Your task to perform on an android device: Open Google Chrome Image 0: 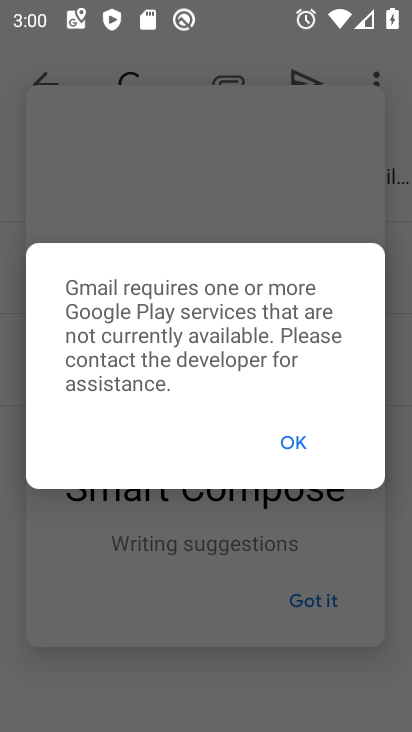
Step 0: press home button
Your task to perform on an android device: Open Google Chrome Image 1: 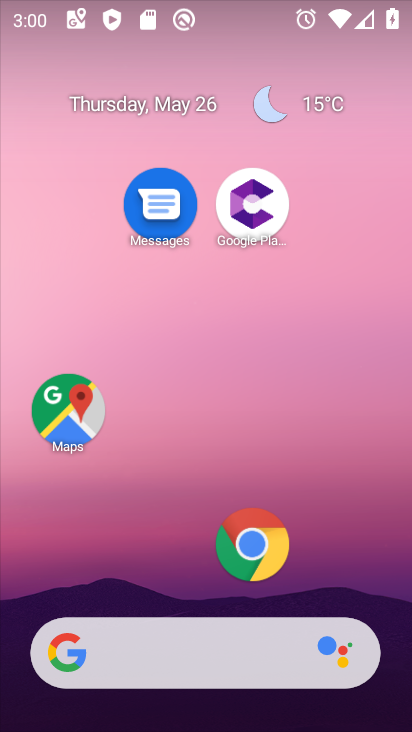
Step 1: click (247, 527)
Your task to perform on an android device: Open Google Chrome Image 2: 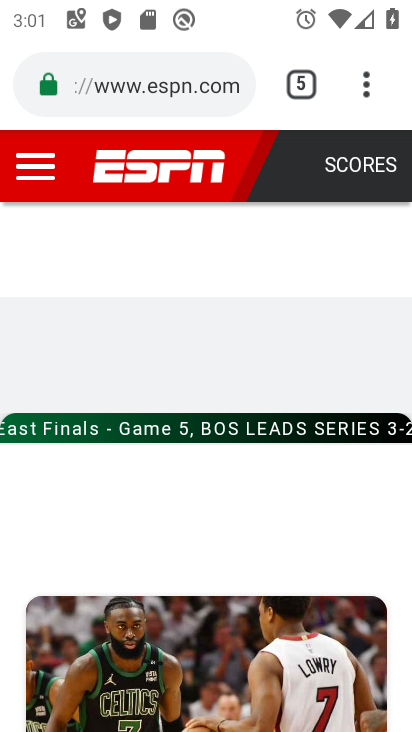
Step 2: task complete